Your task to perform on an android device: move an email to a new category in the gmail app Image 0: 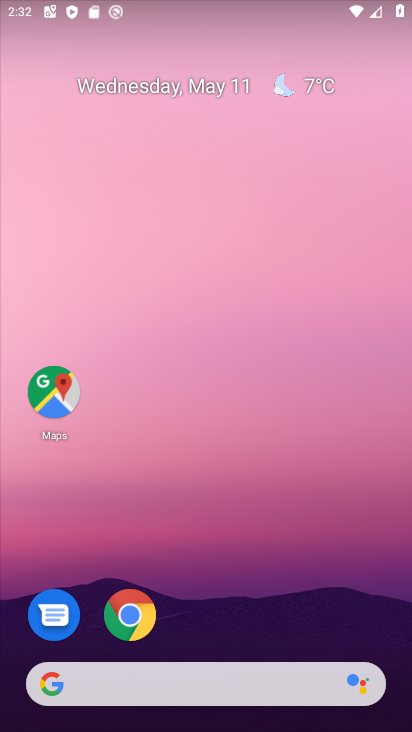
Step 0: drag from (328, 634) to (300, 142)
Your task to perform on an android device: move an email to a new category in the gmail app Image 1: 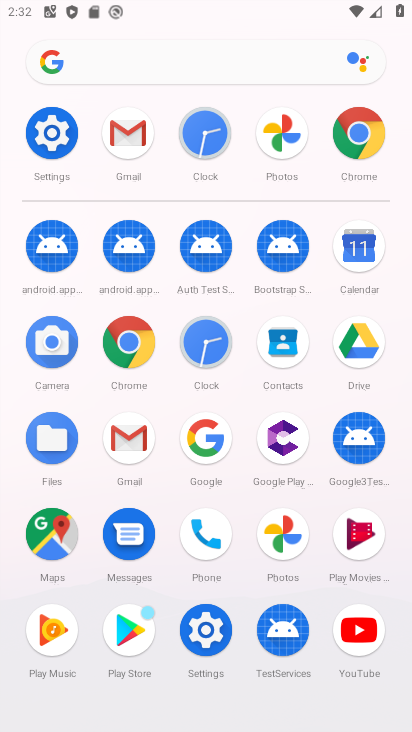
Step 1: click (134, 142)
Your task to perform on an android device: move an email to a new category in the gmail app Image 2: 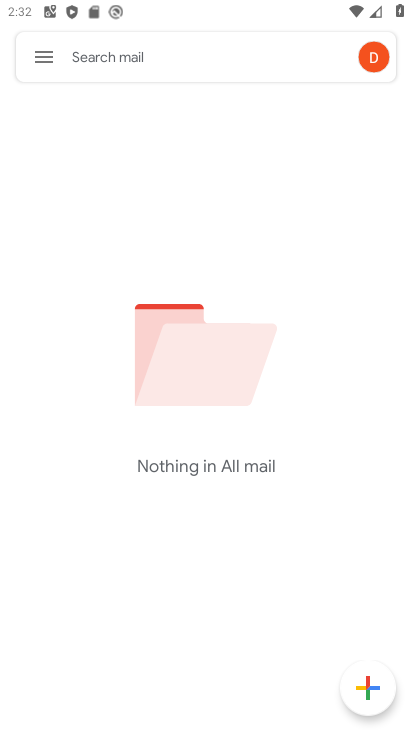
Step 2: click (38, 53)
Your task to perform on an android device: move an email to a new category in the gmail app Image 3: 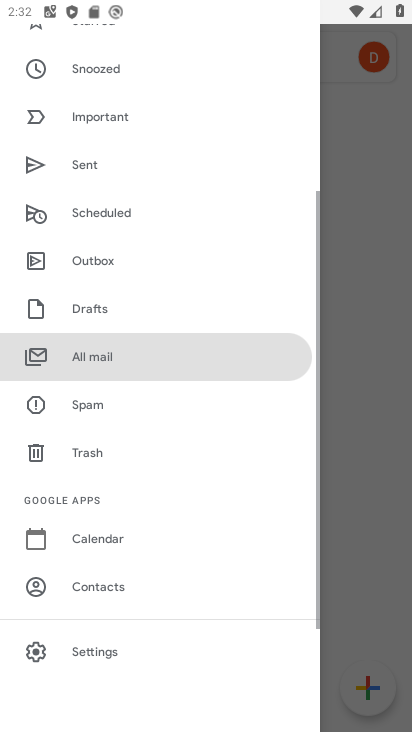
Step 3: drag from (147, 560) to (173, 229)
Your task to perform on an android device: move an email to a new category in the gmail app Image 4: 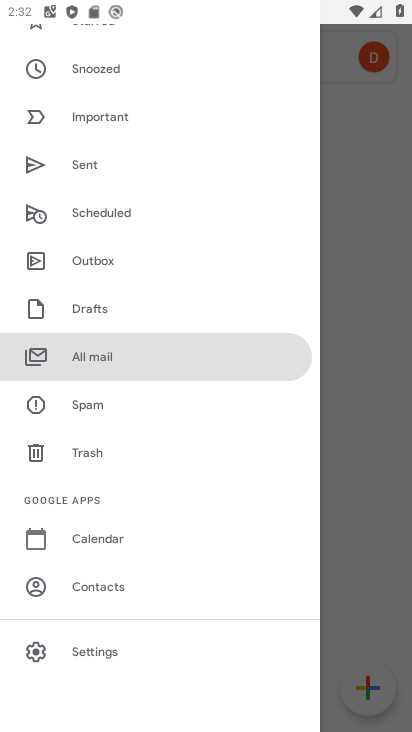
Step 4: click (106, 647)
Your task to perform on an android device: move an email to a new category in the gmail app Image 5: 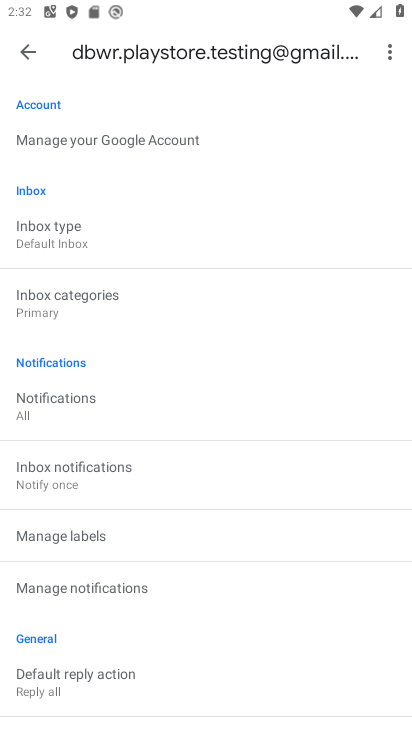
Step 5: drag from (200, 562) to (179, 599)
Your task to perform on an android device: move an email to a new category in the gmail app Image 6: 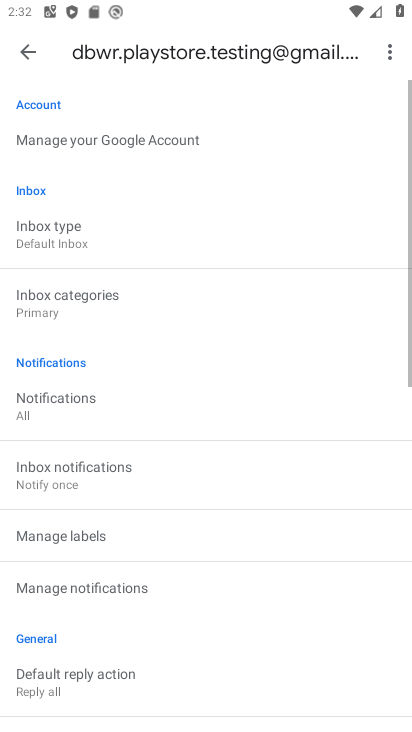
Step 6: click (27, 47)
Your task to perform on an android device: move an email to a new category in the gmail app Image 7: 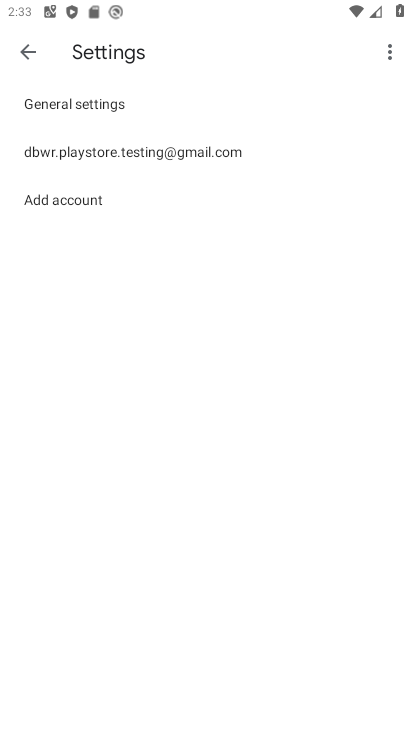
Step 7: click (28, 56)
Your task to perform on an android device: move an email to a new category in the gmail app Image 8: 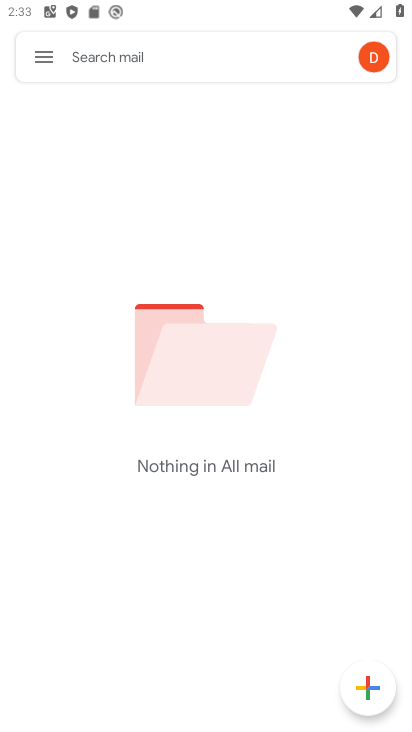
Step 8: task complete